Your task to perform on an android device: Open the web browser Image 0: 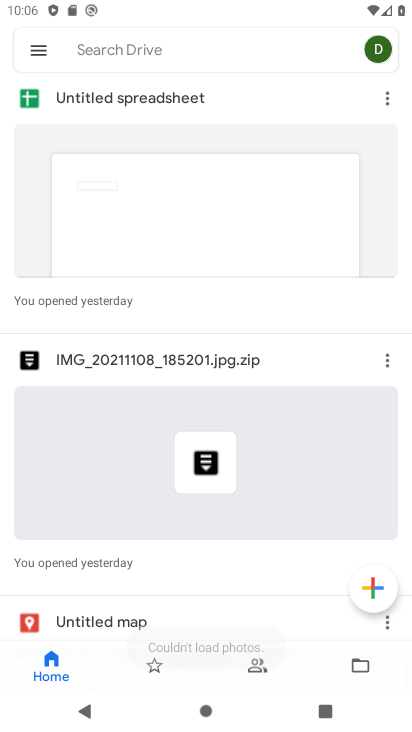
Step 0: press home button
Your task to perform on an android device: Open the web browser Image 1: 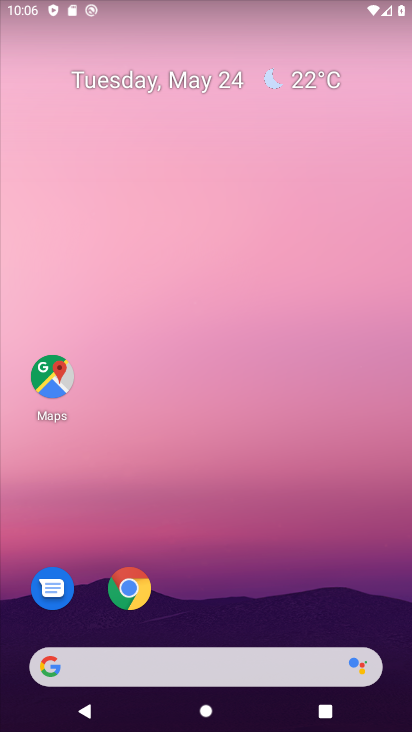
Step 1: click (205, 660)
Your task to perform on an android device: Open the web browser Image 2: 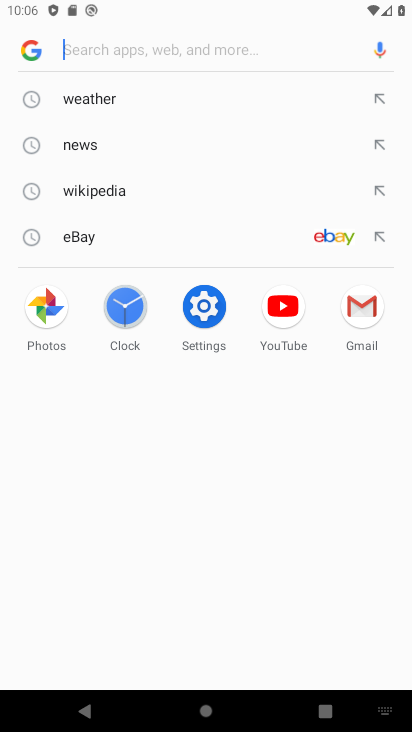
Step 2: task complete